Your task to perform on an android device: open sync settings in chrome Image 0: 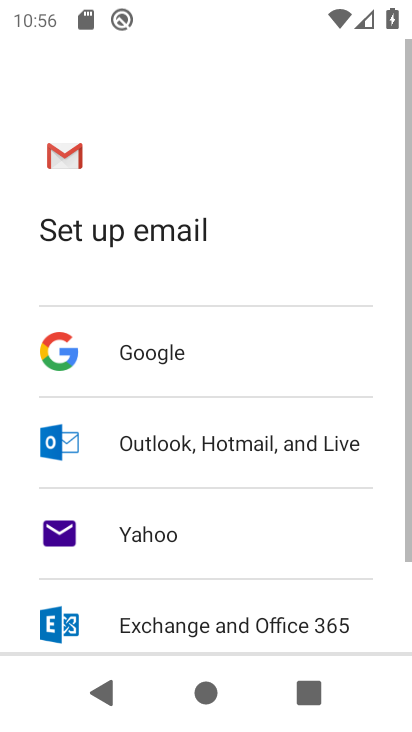
Step 0: press back button
Your task to perform on an android device: open sync settings in chrome Image 1: 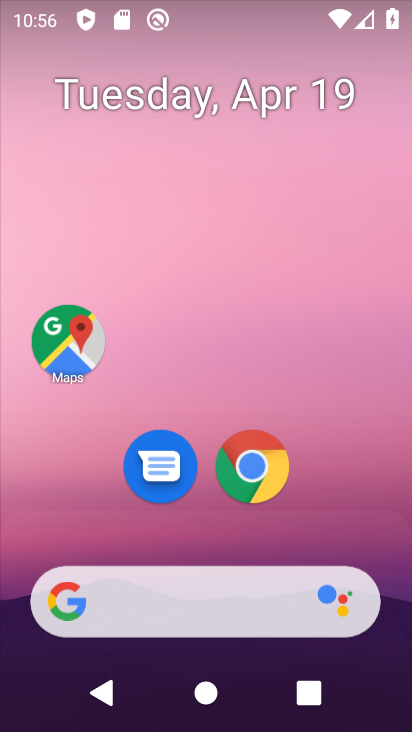
Step 1: click (269, 476)
Your task to perform on an android device: open sync settings in chrome Image 2: 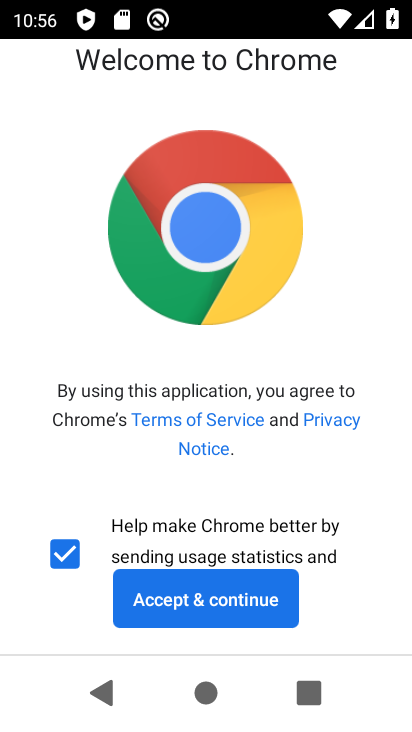
Step 2: click (236, 594)
Your task to perform on an android device: open sync settings in chrome Image 3: 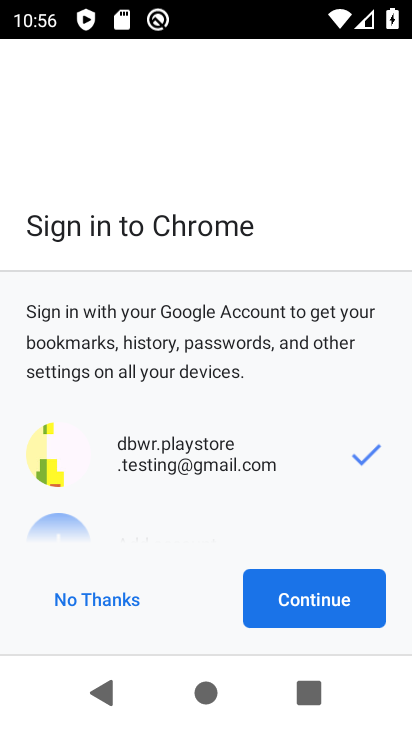
Step 3: click (314, 608)
Your task to perform on an android device: open sync settings in chrome Image 4: 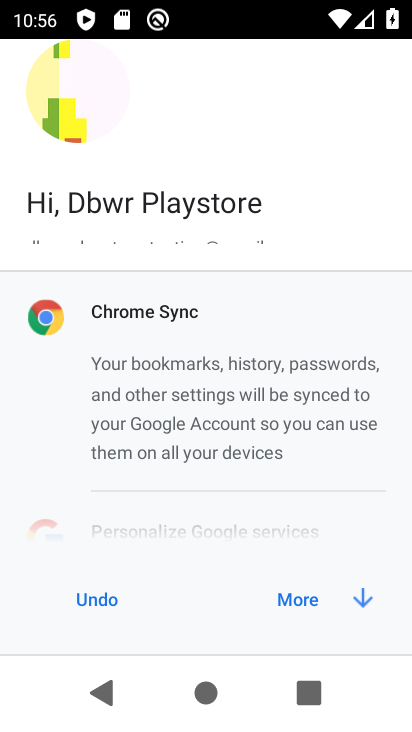
Step 4: click (314, 608)
Your task to perform on an android device: open sync settings in chrome Image 5: 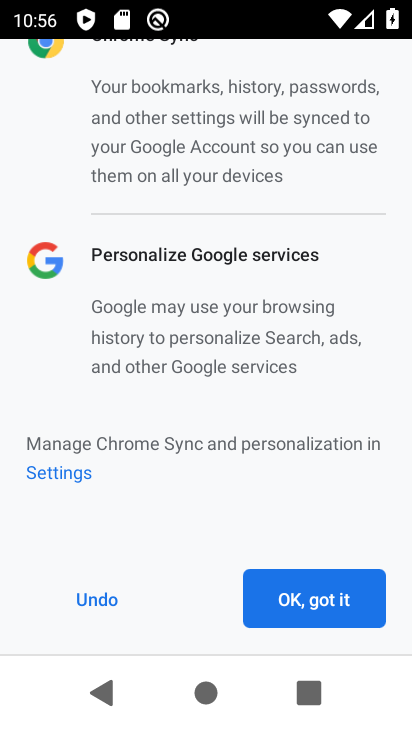
Step 5: click (325, 598)
Your task to perform on an android device: open sync settings in chrome Image 6: 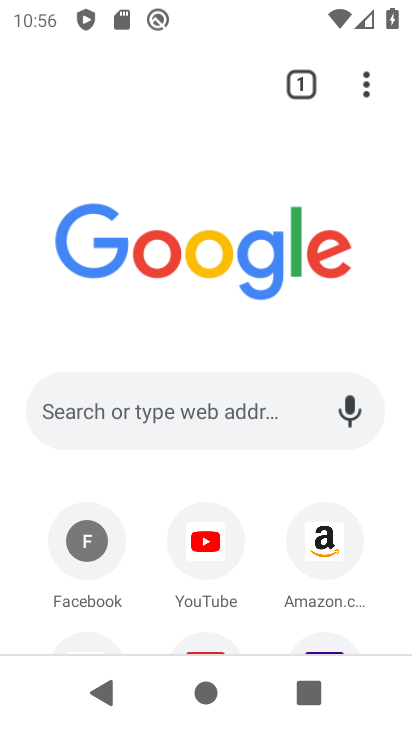
Step 6: click (378, 89)
Your task to perform on an android device: open sync settings in chrome Image 7: 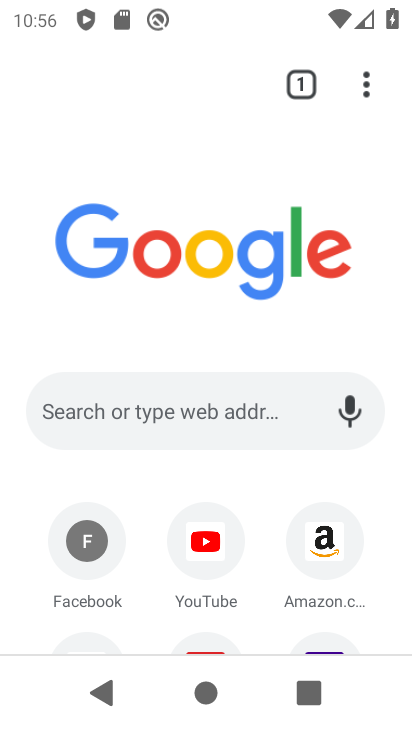
Step 7: drag from (378, 89) to (257, 533)
Your task to perform on an android device: open sync settings in chrome Image 8: 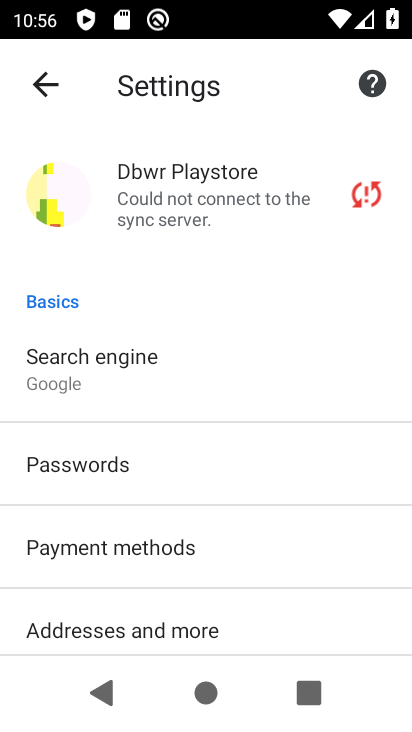
Step 8: click (252, 235)
Your task to perform on an android device: open sync settings in chrome Image 9: 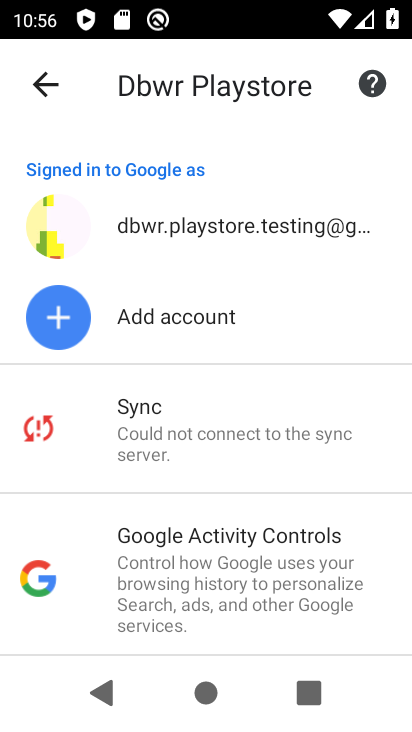
Step 9: click (269, 415)
Your task to perform on an android device: open sync settings in chrome Image 10: 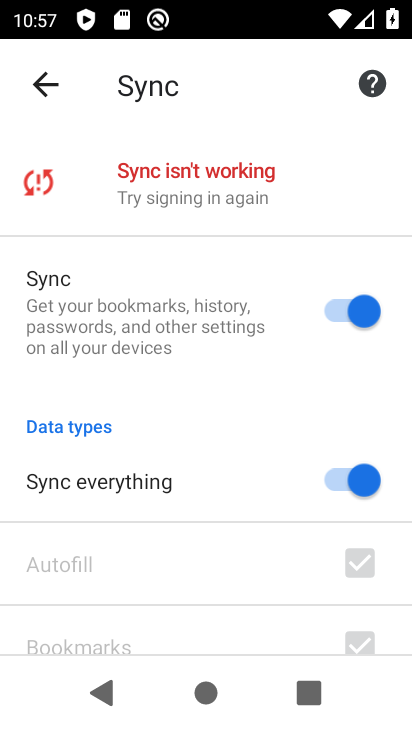
Step 10: task complete